Your task to perform on an android device: Open Reddit.com Image 0: 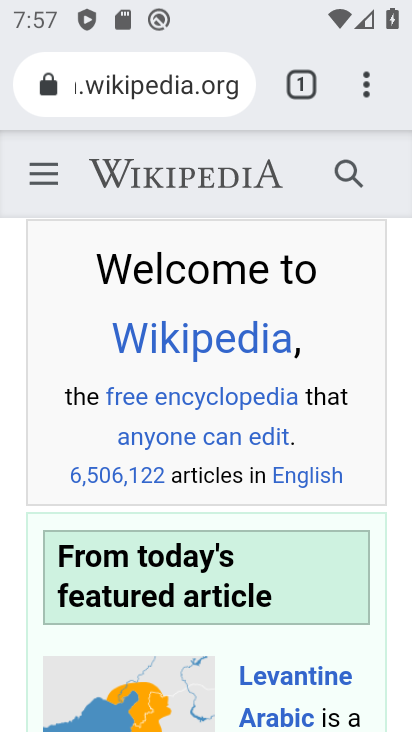
Step 0: click (313, 74)
Your task to perform on an android device: Open Reddit.com Image 1: 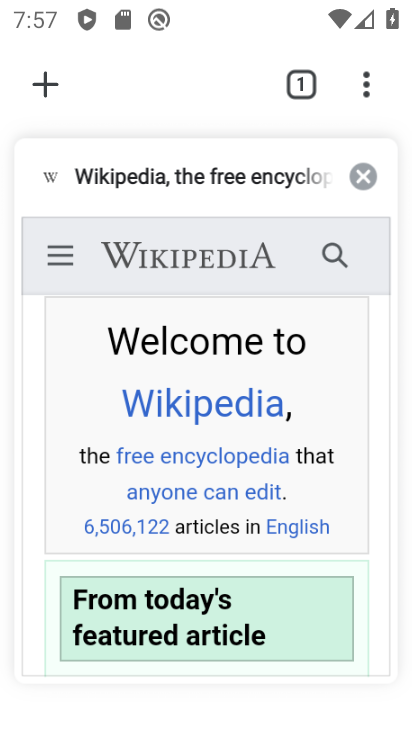
Step 1: click (38, 91)
Your task to perform on an android device: Open Reddit.com Image 2: 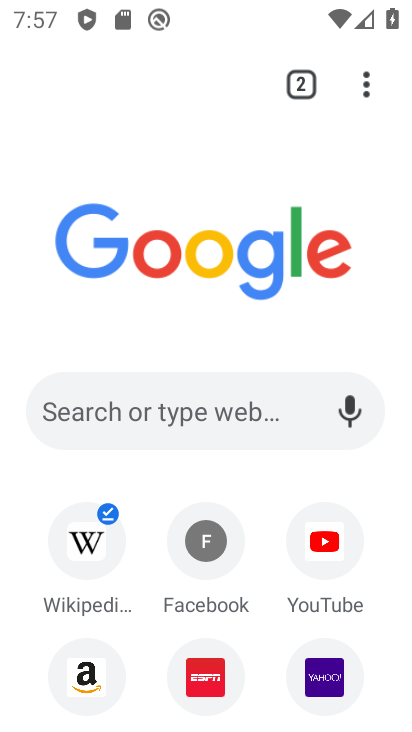
Step 2: click (143, 413)
Your task to perform on an android device: Open Reddit.com Image 3: 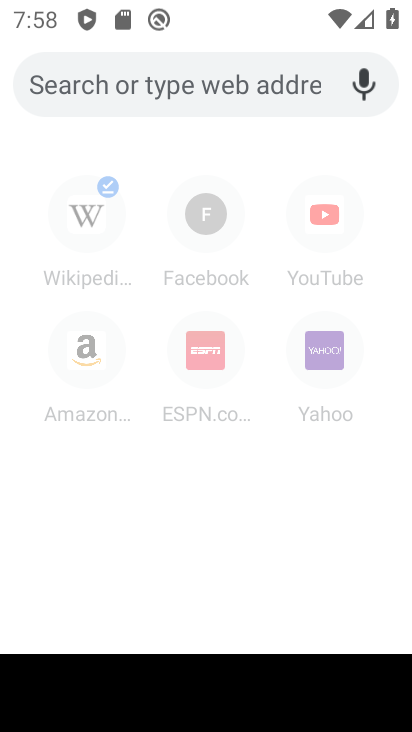
Step 3: type "Reddit.com"
Your task to perform on an android device: Open Reddit.com Image 4: 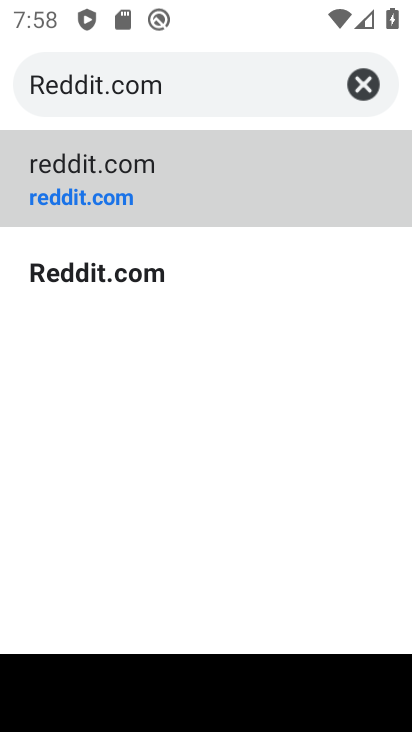
Step 4: click (145, 190)
Your task to perform on an android device: Open Reddit.com Image 5: 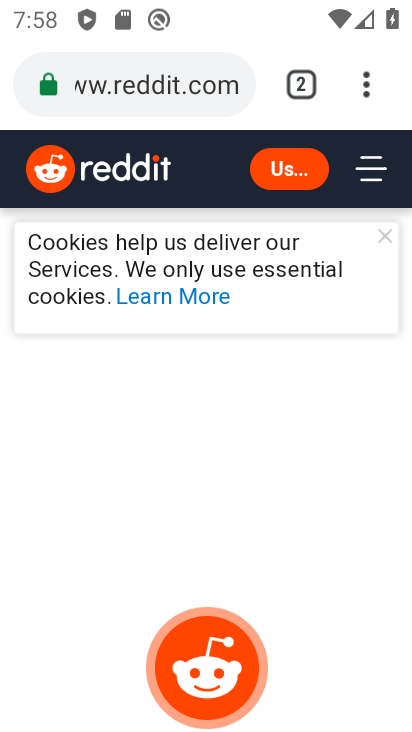
Step 5: task complete